Your task to perform on an android device: turn off picture-in-picture Image 0: 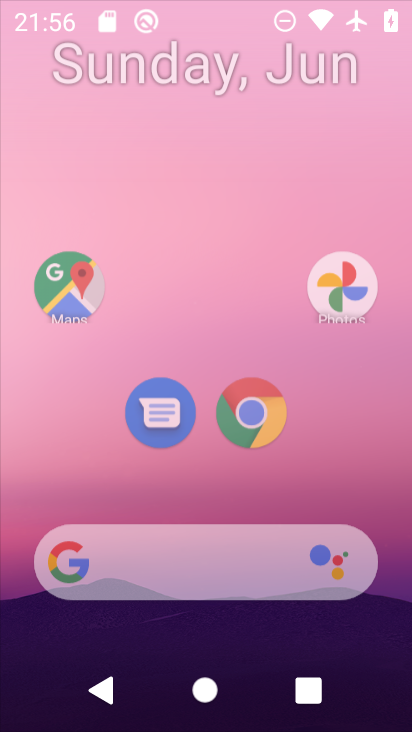
Step 0: press home button
Your task to perform on an android device: turn off picture-in-picture Image 1: 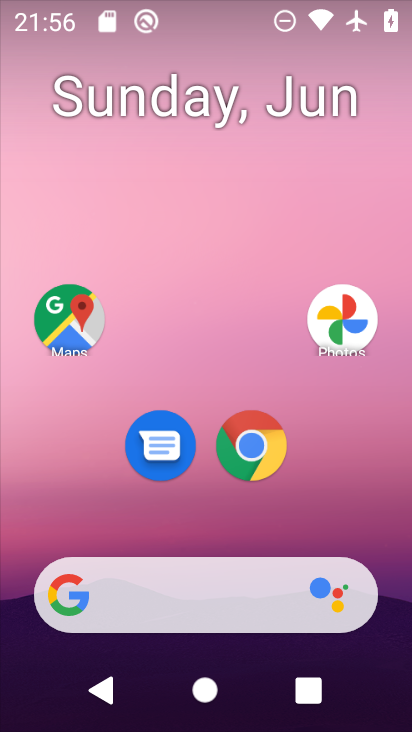
Step 1: click (260, 442)
Your task to perform on an android device: turn off picture-in-picture Image 2: 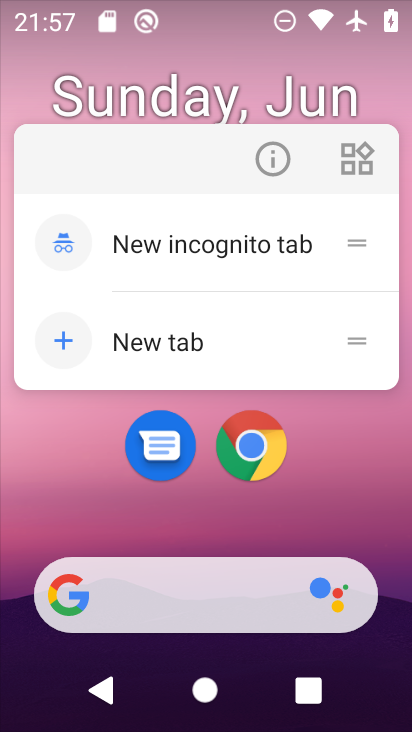
Step 2: click (267, 155)
Your task to perform on an android device: turn off picture-in-picture Image 3: 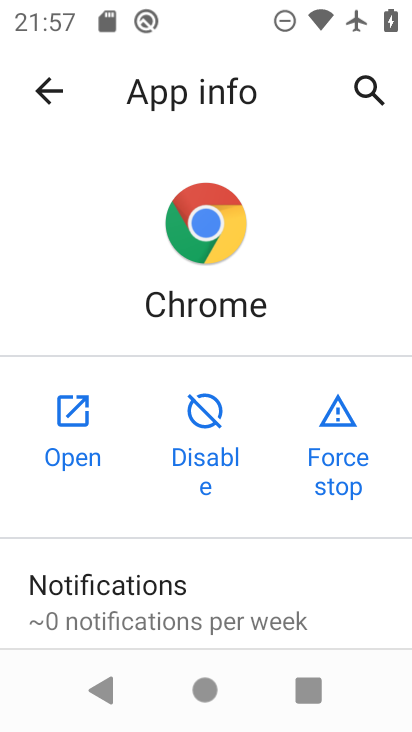
Step 3: drag from (221, 598) to (203, 111)
Your task to perform on an android device: turn off picture-in-picture Image 4: 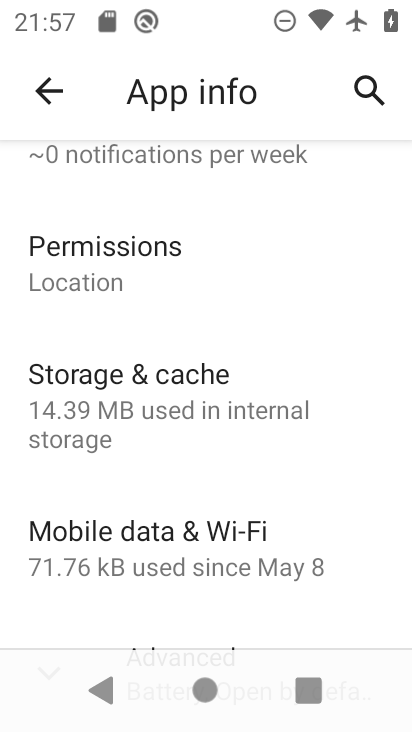
Step 4: drag from (280, 522) to (253, 100)
Your task to perform on an android device: turn off picture-in-picture Image 5: 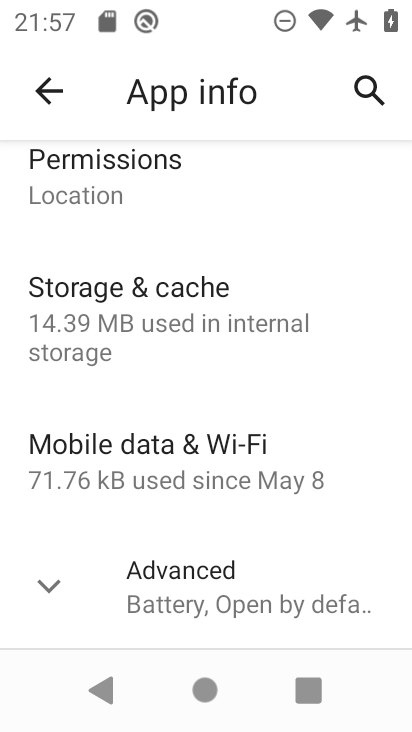
Step 5: click (35, 582)
Your task to perform on an android device: turn off picture-in-picture Image 6: 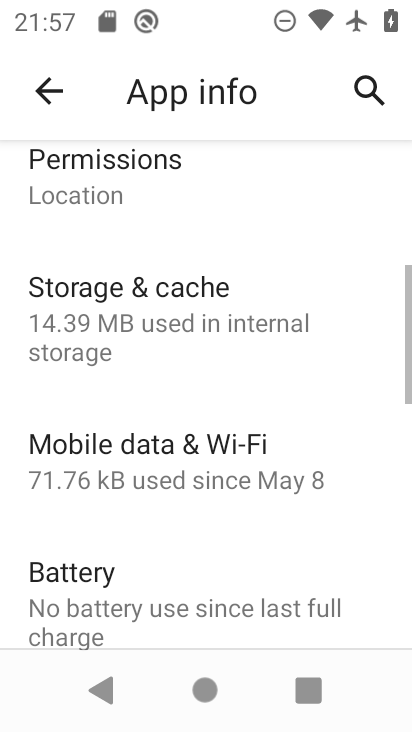
Step 6: drag from (203, 550) to (225, 134)
Your task to perform on an android device: turn off picture-in-picture Image 7: 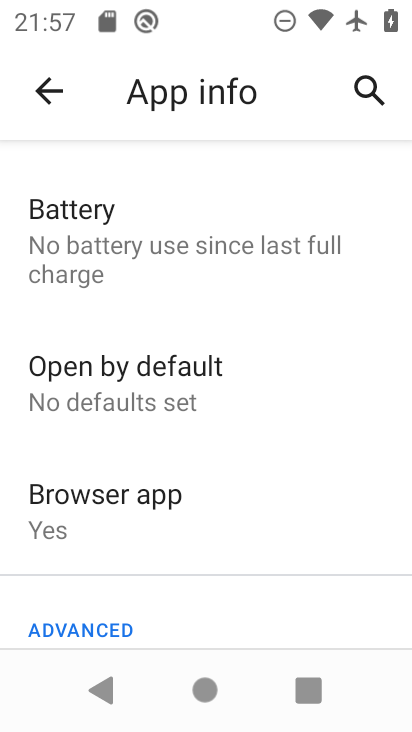
Step 7: drag from (274, 361) to (258, 212)
Your task to perform on an android device: turn off picture-in-picture Image 8: 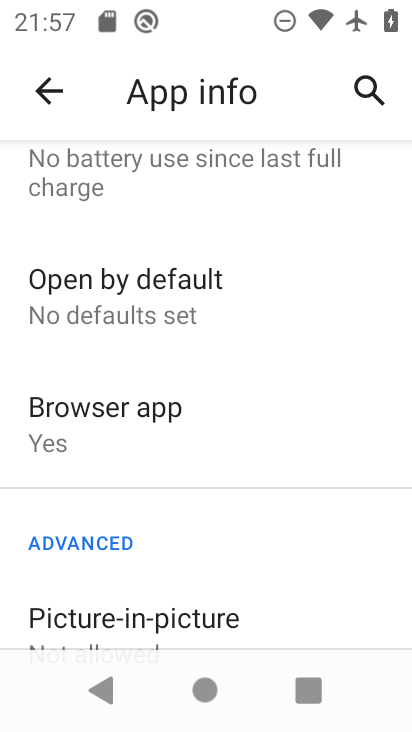
Step 8: click (222, 614)
Your task to perform on an android device: turn off picture-in-picture Image 9: 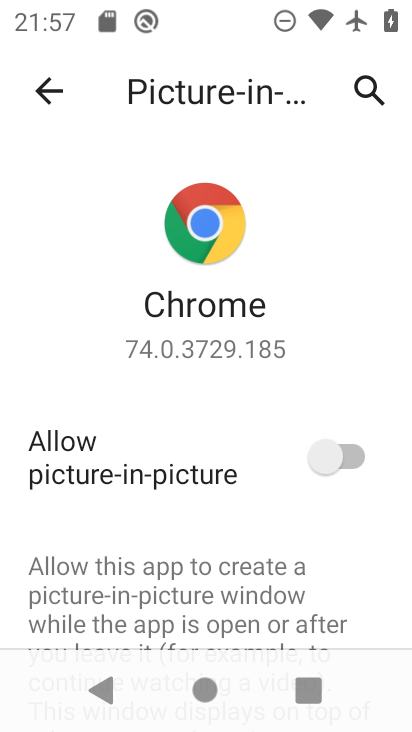
Step 9: task complete